Your task to perform on an android device: Search for Mexican restaurants on Maps Image 0: 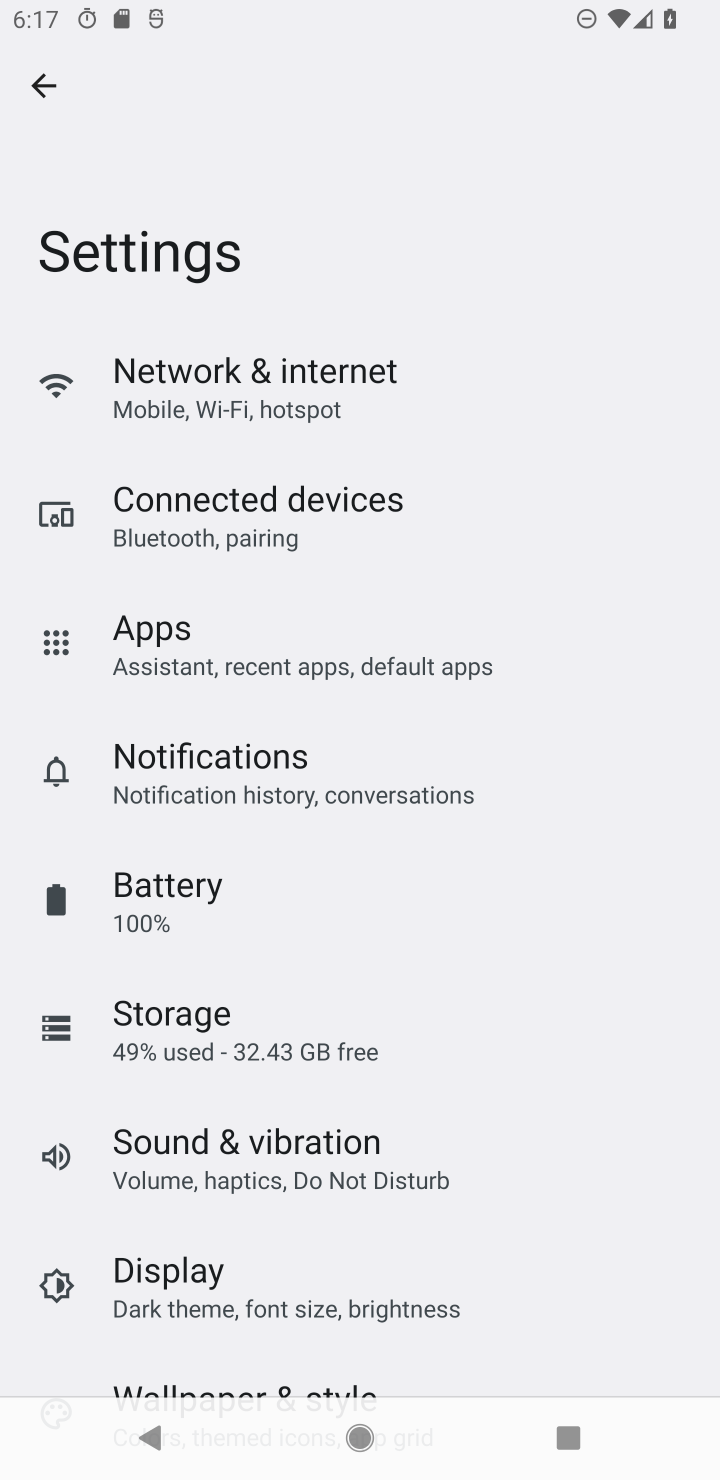
Step 0: press home button
Your task to perform on an android device: Search for Mexican restaurants on Maps Image 1: 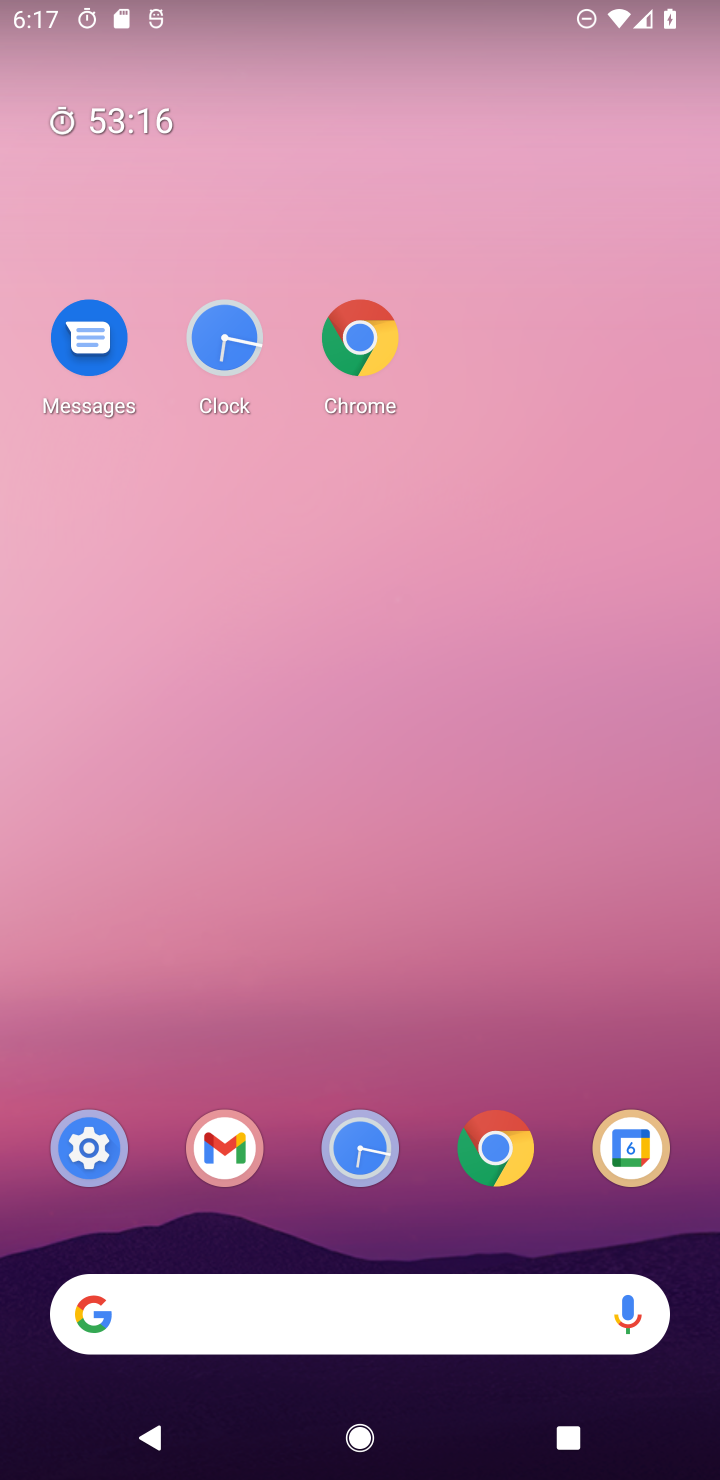
Step 1: drag from (320, 493) to (313, 347)
Your task to perform on an android device: Search for Mexican restaurants on Maps Image 2: 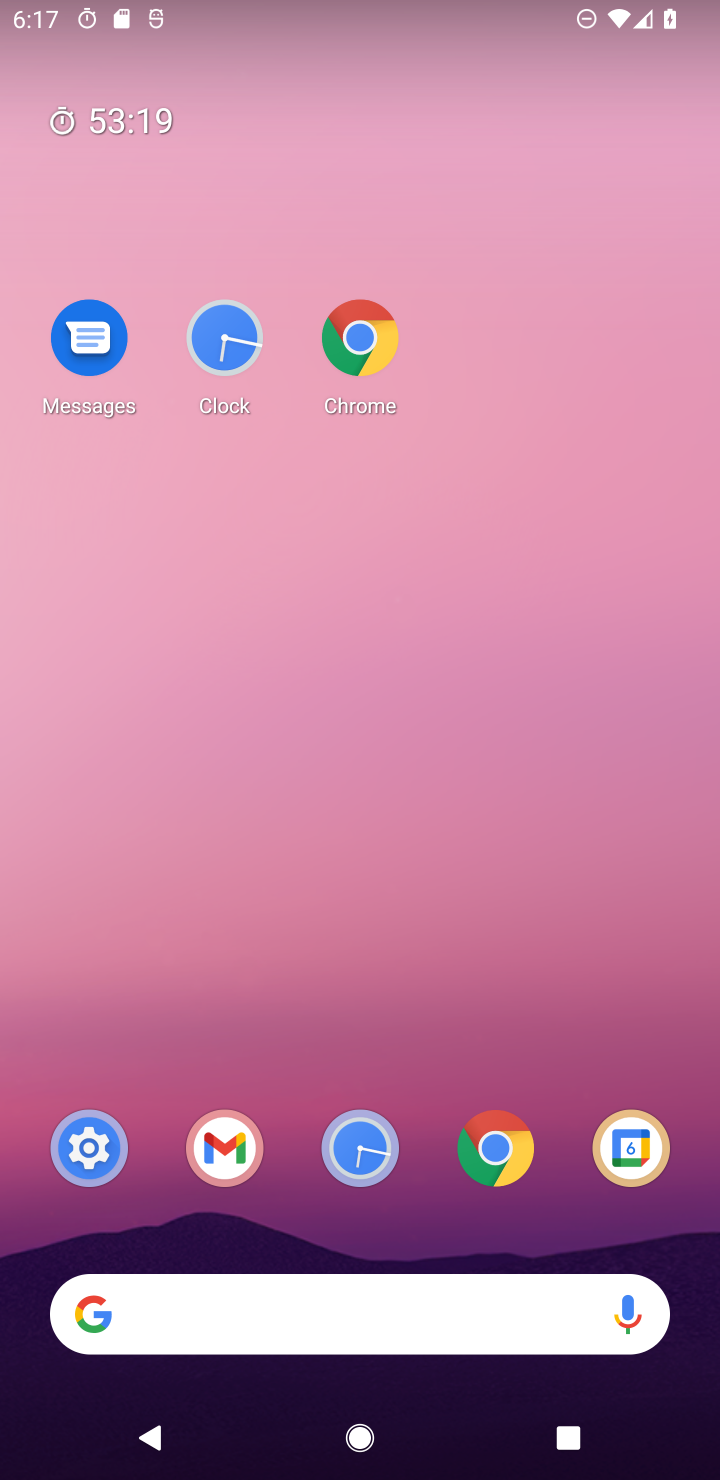
Step 2: drag from (432, 969) to (455, 218)
Your task to perform on an android device: Search for Mexican restaurants on Maps Image 3: 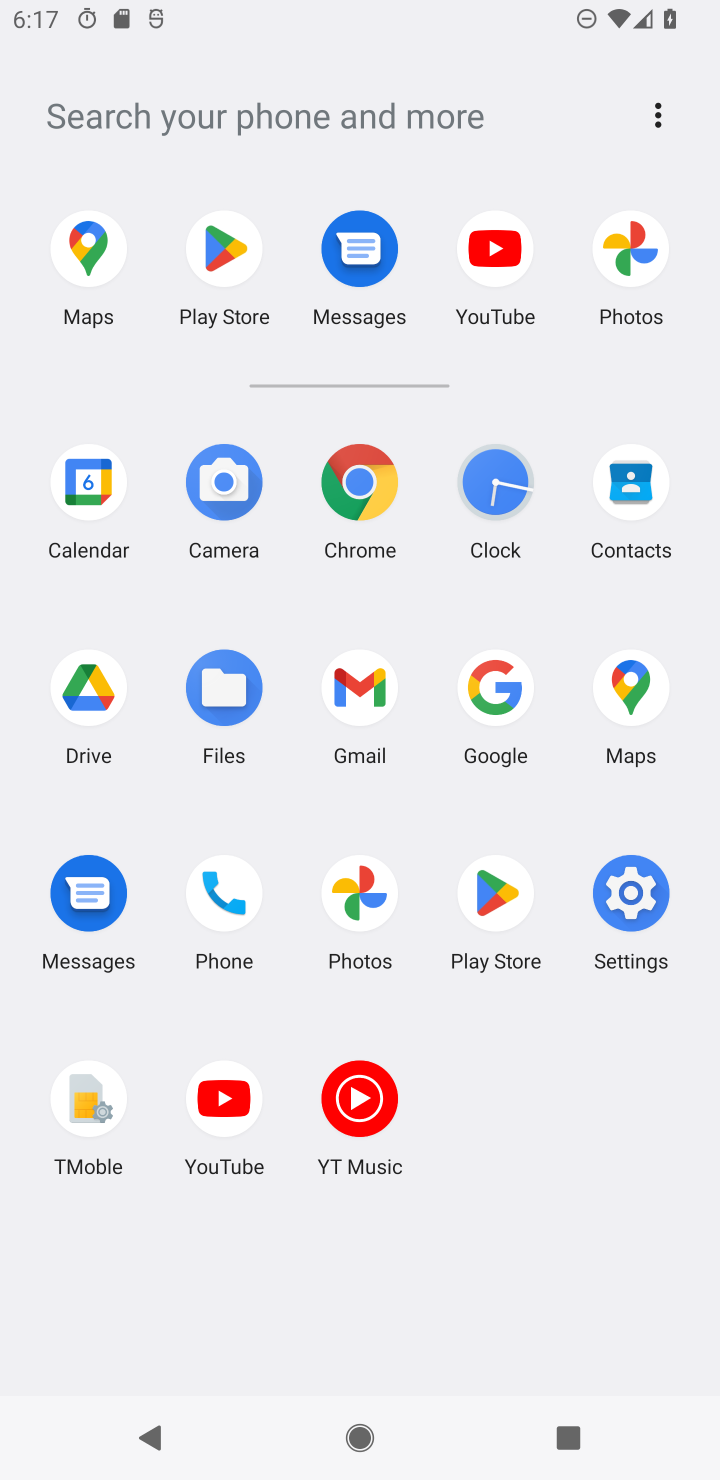
Step 3: click (612, 676)
Your task to perform on an android device: Search for Mexican restaurants on Maps Image 4: 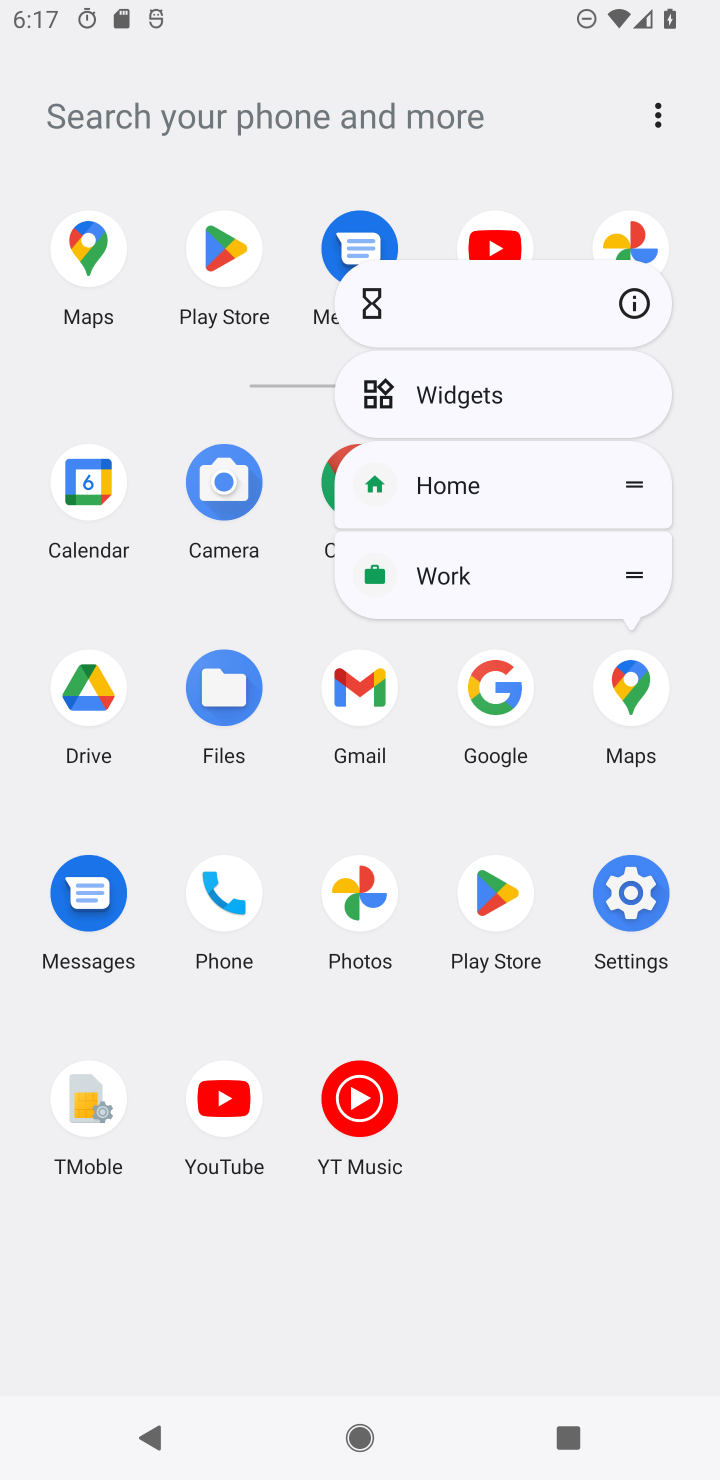
Step 4: click (650, 287)
Your task to perform on an android device: Search for Mexican restaurants on Maps Image 5: 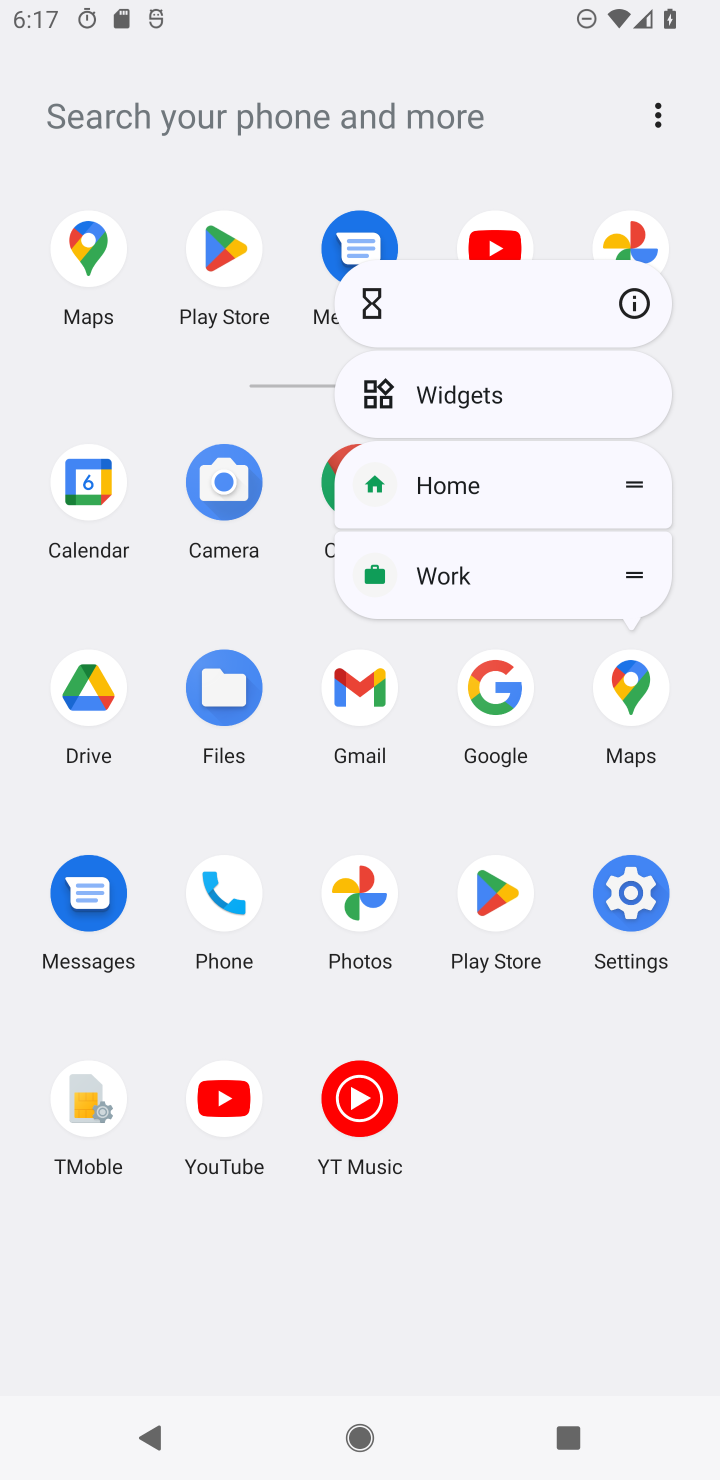
Step 5: click (642, 295)
Your task to perform on an android device: Search for Mexican restaurants on Maps Image 6: 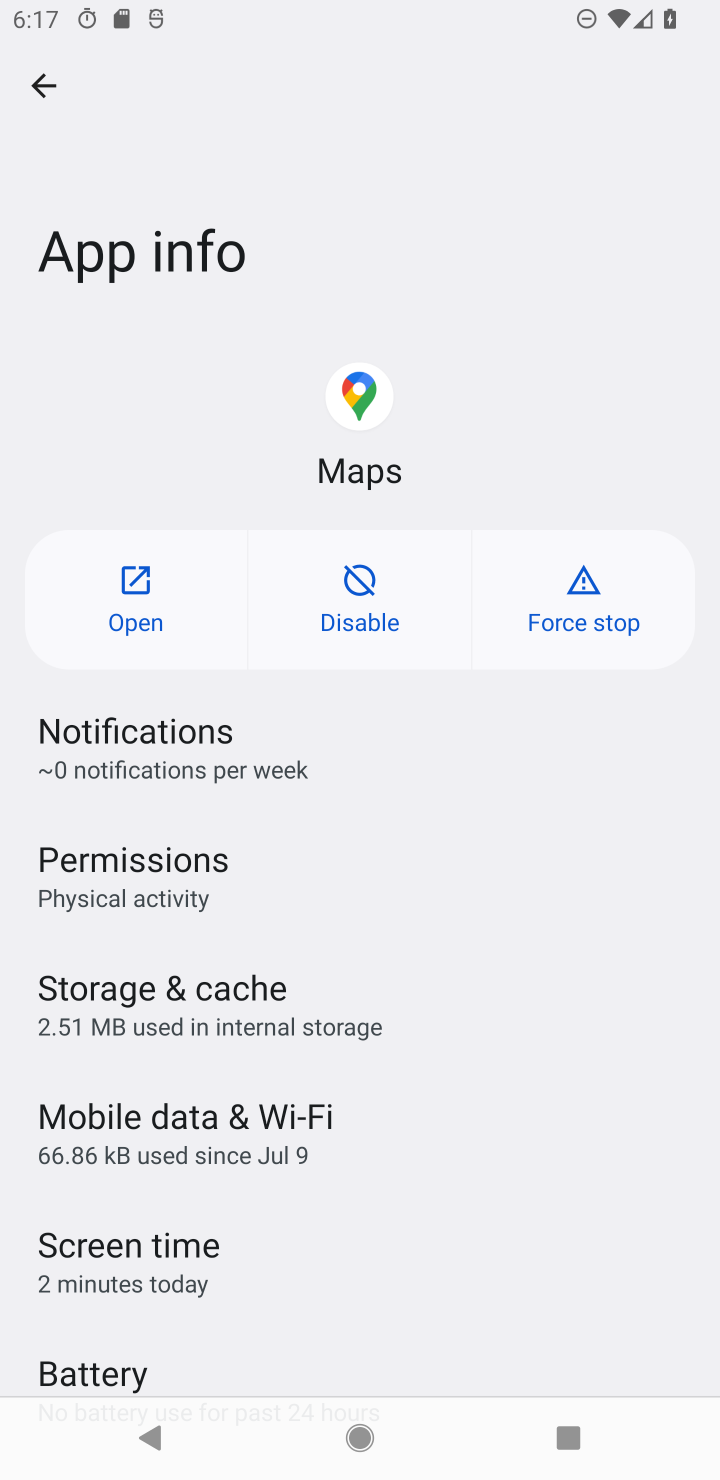
Step 6: click (111, 583)
Your task to perform on an android device: Search for Mexican restaurants on Maps Image 7: 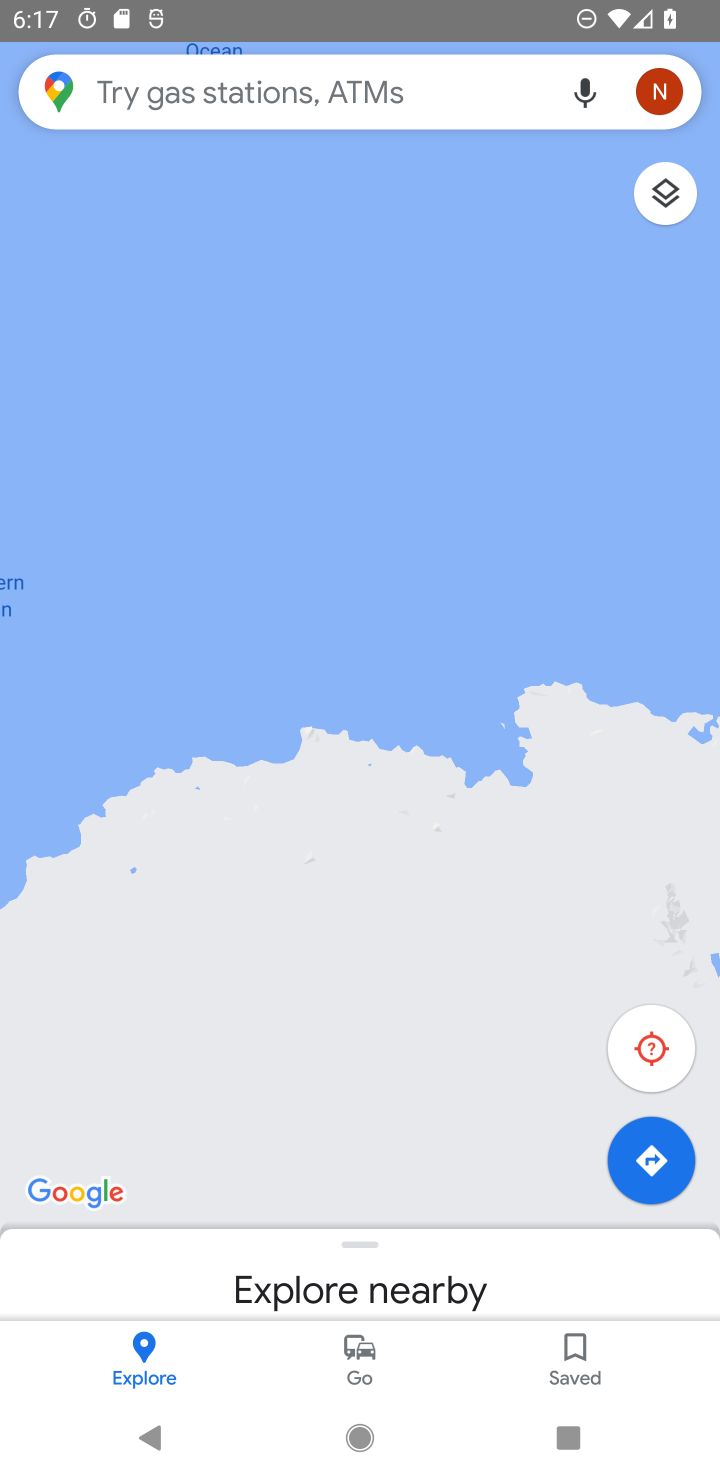
Step 7: click (295, 93)
Your task to perform on an android device: Search for Mexican restaurants on Maps Image 8: 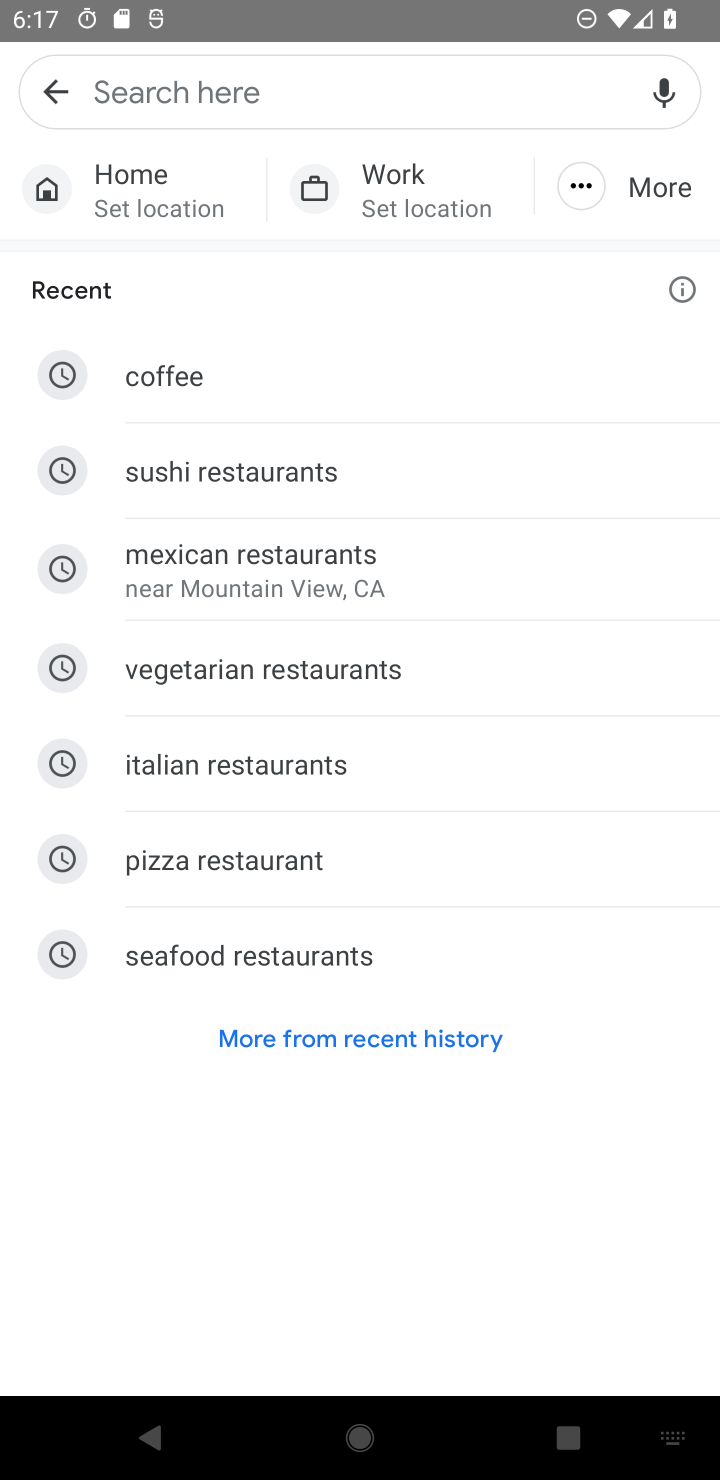
Step 8: click (258, 557)
Your task to perform on an android device: Search for Mexican restaurants on Maps Image 9: 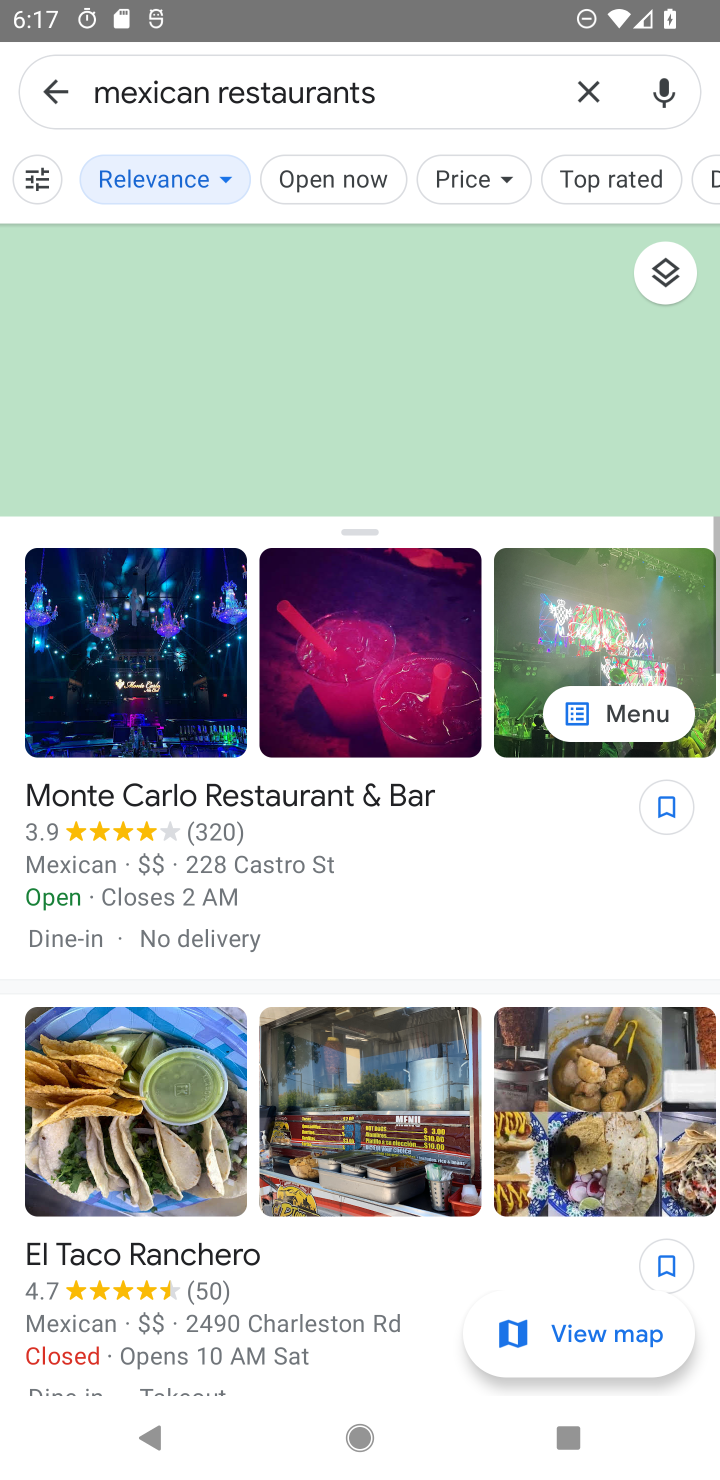
Step 9: task complete